Your task to perform on an android device: clear history in the chrome app Image 0: 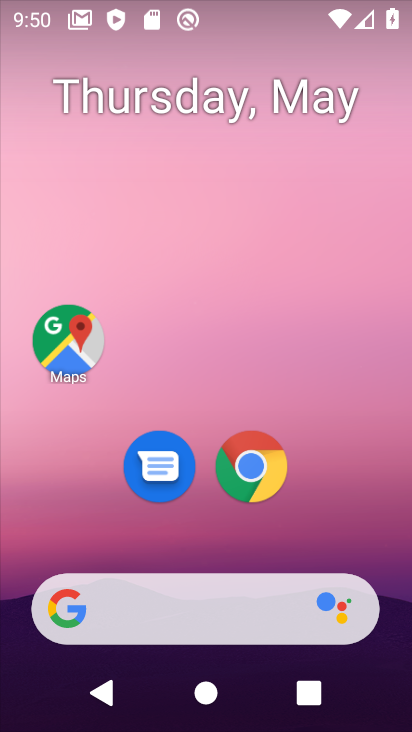
Step 0: drag from (343, 465) to (306, 70)
Your task to perform on an android device: clear history in the chrome app Image 1: 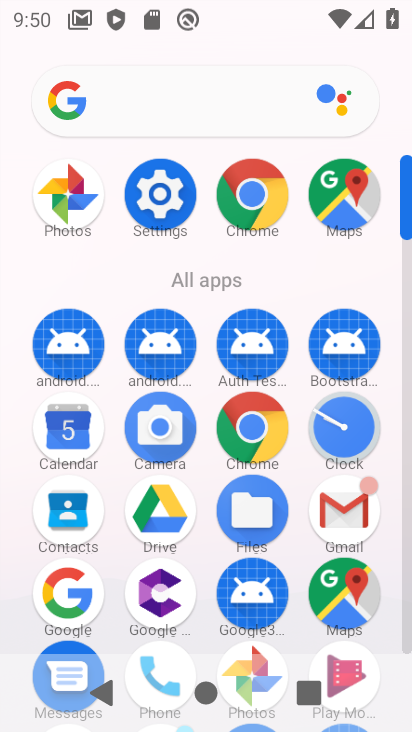
Step 1: click (345, 184)
Your task to perform on an android device: clear history in the chrome app Image 2: 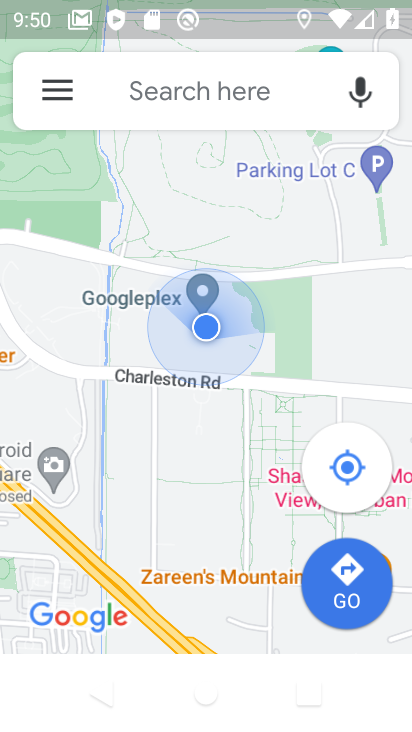
Step 2: press home button
Your task to perform on an android device: clear history in the chrome app Image 3: 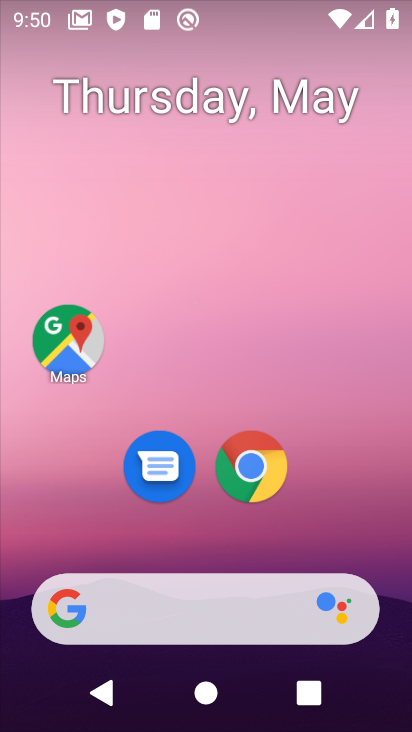
Step 3: click (242, 467)
Your task to perform on an android device: clear history in the chrome app Image 4: 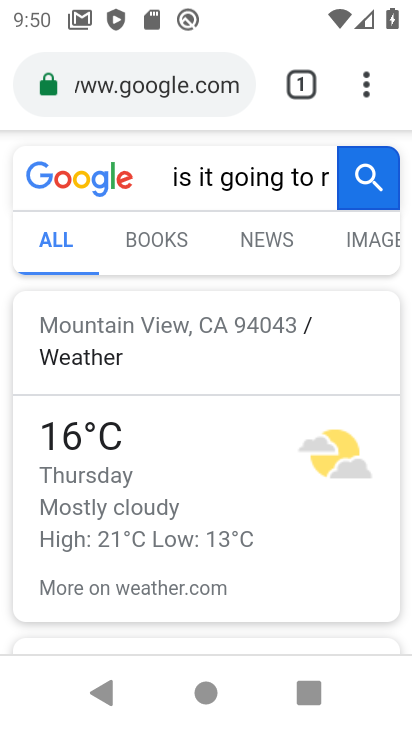
Step 4: drag from (360, 87) to (122, 487)
Your task to perform on an android device: clear history in the chrome app Image 5: 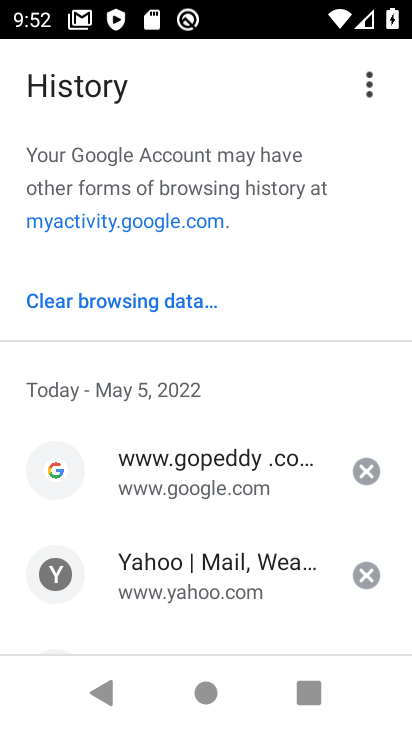
Step 5: click (184, 298)
Your task to perform on an android device: clear history in the chrome app Image 6: 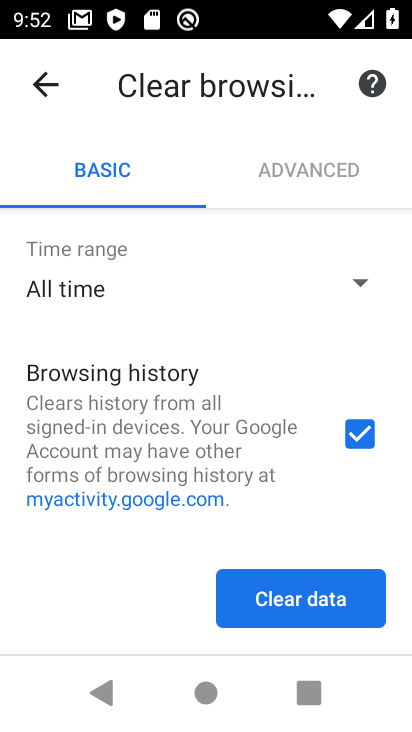
Step 6: click (300, 576)
Your task to perform on an android device: clear history in the chrome app Image 7: 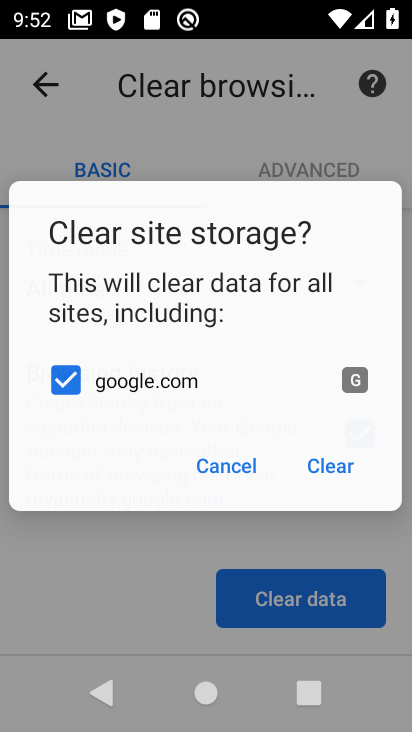
Step 7: click (299, 602)
Your task to perform on an android device: clear history in the chrome app Image 8: 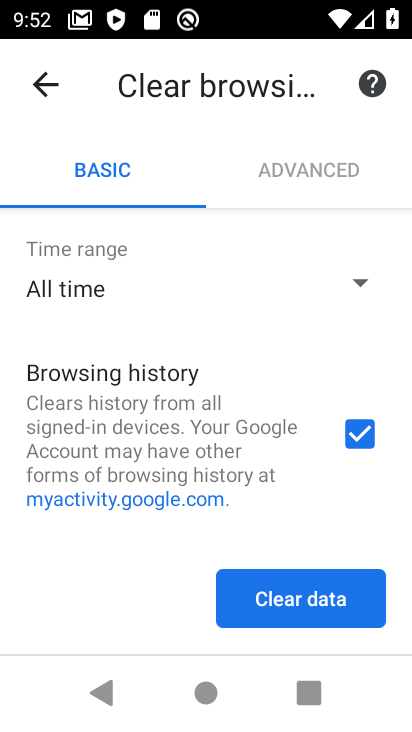
Step 8: click (302, 602)
Your task to perform on an android device: clear history in the chrome app Image 9: 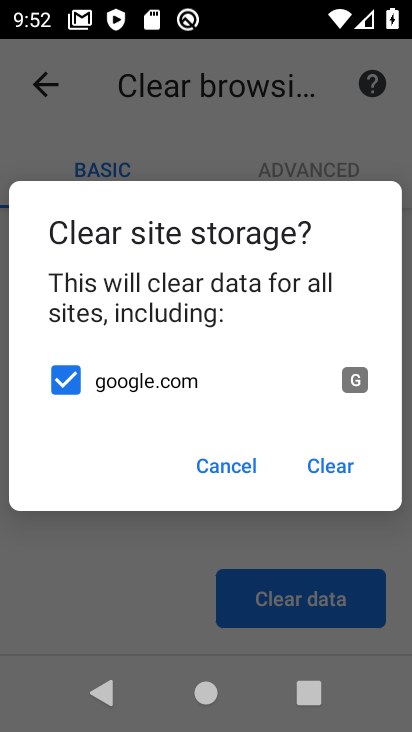
Step 9: click (350, 469)
Your task to perform on an android device: clear history in the chrome app Image 10: 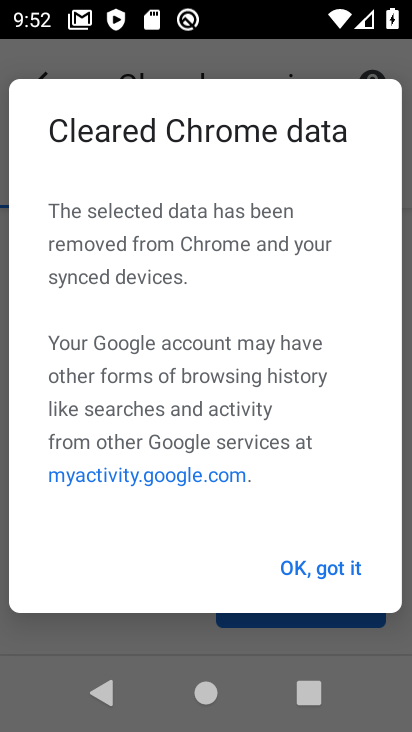
Step 10: task complete